Your task to perform on an android device: What is the news today? Image 0: 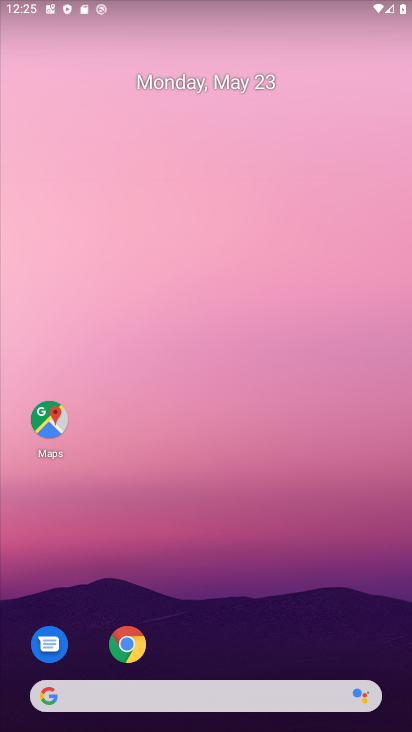
Step 0: click (176, 699)
Your task to perform on an android device: What is the news today? Image 1: 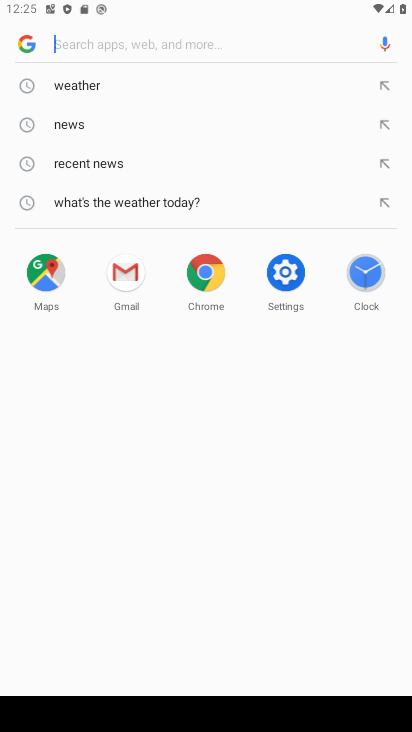
Step 1: click (181, 45)
Your task to perform on an android device: What is the news today? Image 2: 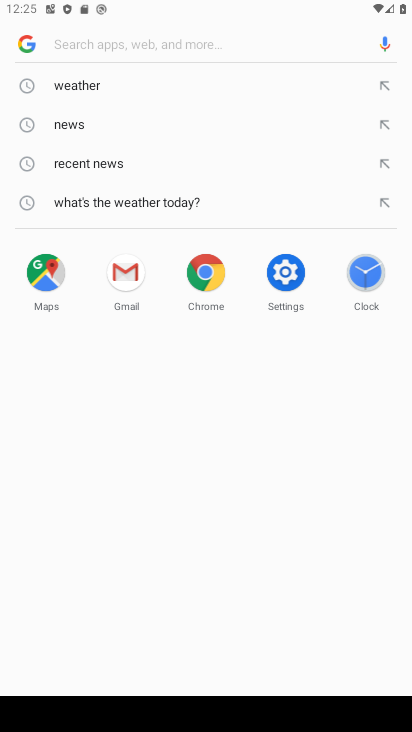
Step 2: type "news today"
Your task to perform on an android device: What is the news today? Image 3: 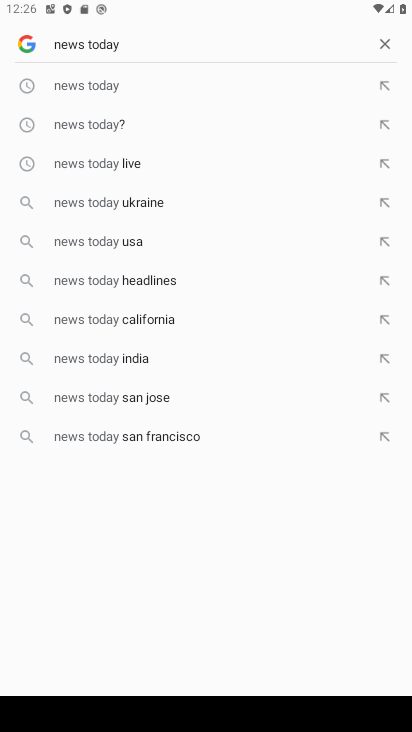
Step 3: click (115, 124)
Your task to perform on an android device: What is the news today? Image 4: 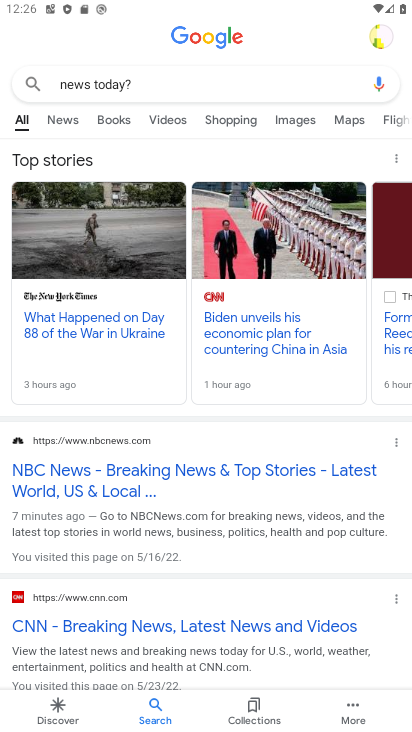
Step 4: click (66, 117)
Your task to perform on an android device: What is the news today? Image 5: 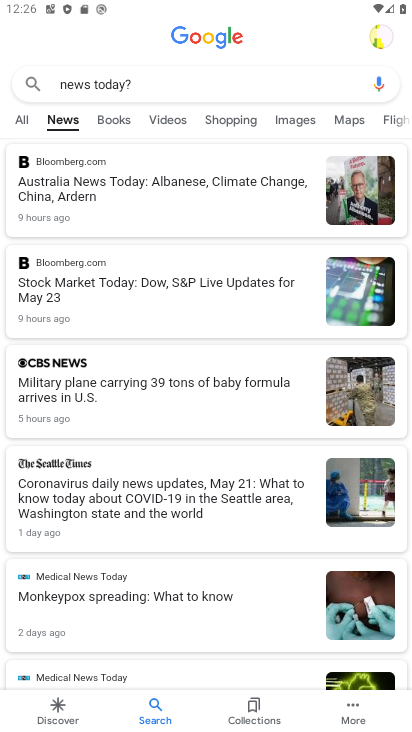
Step 5: task complete